Your task to perform on an android device: Open Reddit.com Image 0: 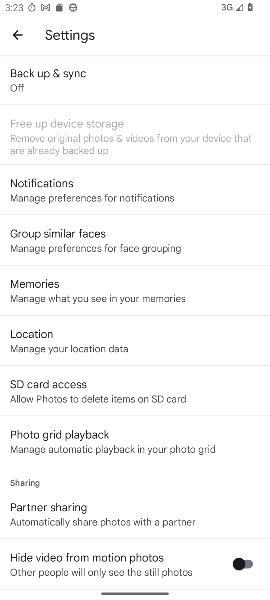
Step 0: press home button
Your task to perform on an android device: Open Reddit.com Image 1: 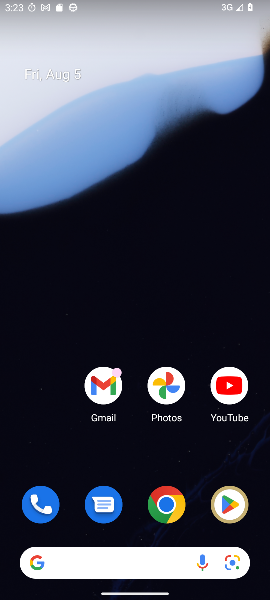
Step 1: click (86, 564)
Your task to perform on an android device: Open Reddit.com Image 2: 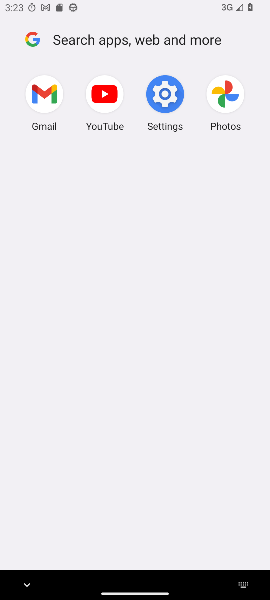
Step 2: type "Reddit.com"
Your task to perform on an android device: Open Reddit.com Image 3: 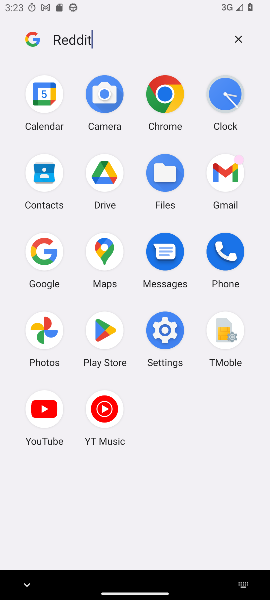
Step 3: type ""
Your task to perform on an android device: Open Reddit.com Image 4: 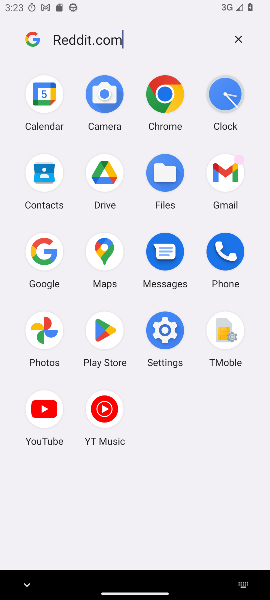
Step 4: type ""
Your task to perform on an android device: Open Reddit.com Image 5: 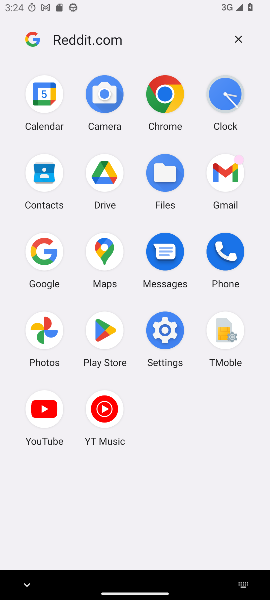
Step 5: type ""
Your task to perform on an android device: Open Reddit.com Image 6: 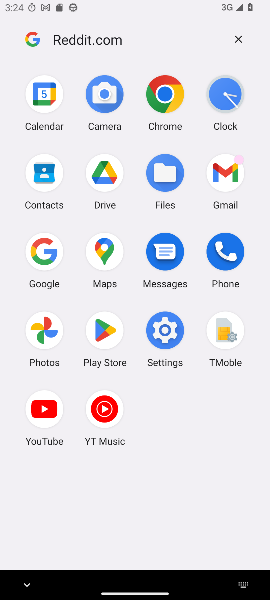
Step 6: task complete